Your task to perform on an android device: clear all cookies in the chrome app Image 0: 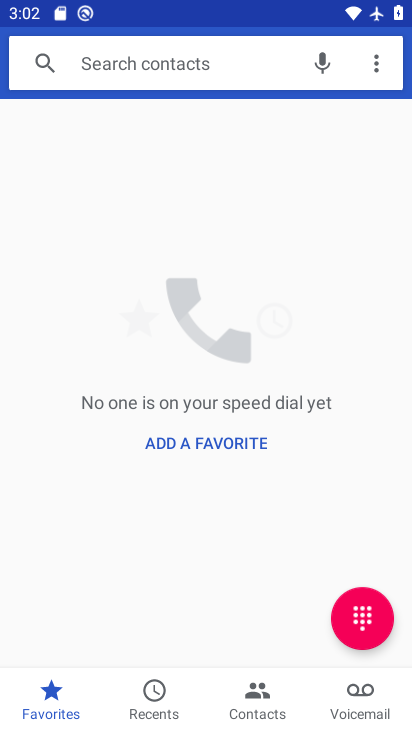
Step 0: press home button
Your task to perform on an android device: clear all cookies in the chrome app Image 1: 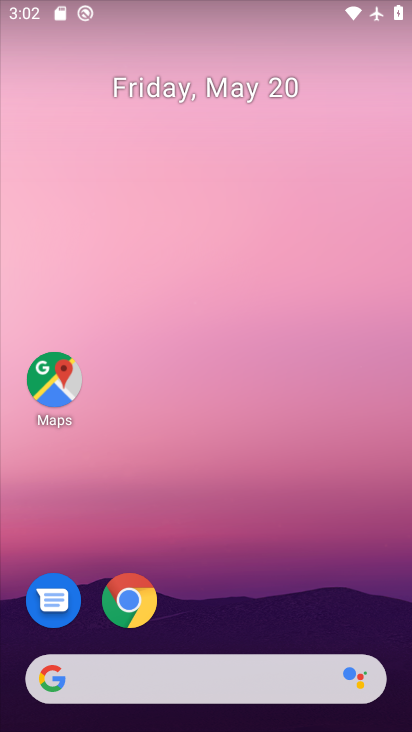
Step 1: click (132, 607)
Your task to perform on an android device: clear all cookies in the chrome app Image 2: 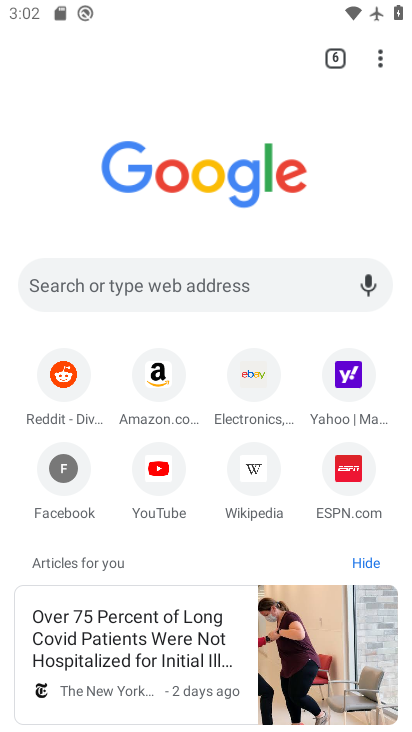
Step 2: click (377, 55)
Your task to perform on an android device: clear all cookies in the chrome app Image 3: 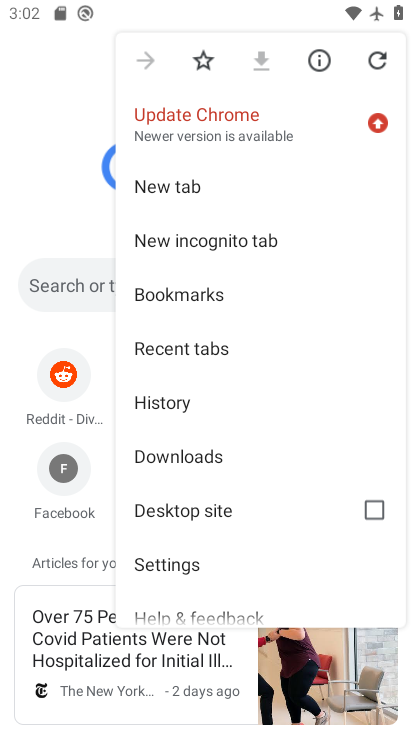
Step 3: click (191, 391)
Your task to perform on an android device: clear all cookies in the chrome app Image 4: 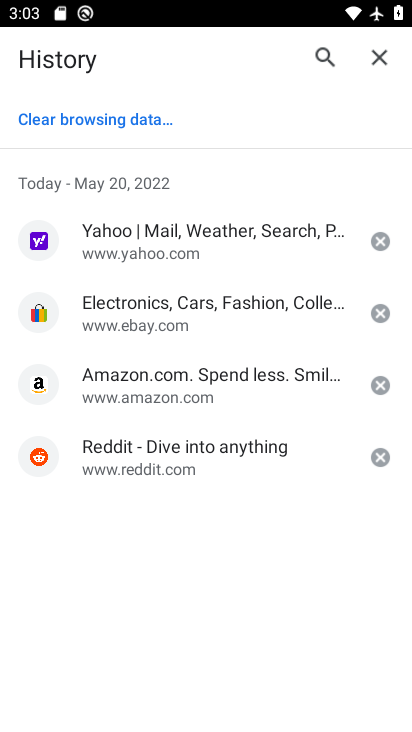
Step 4: click (130, 117)
Your task to perform on an android device: clear all cookies in the chrome app Image 5: 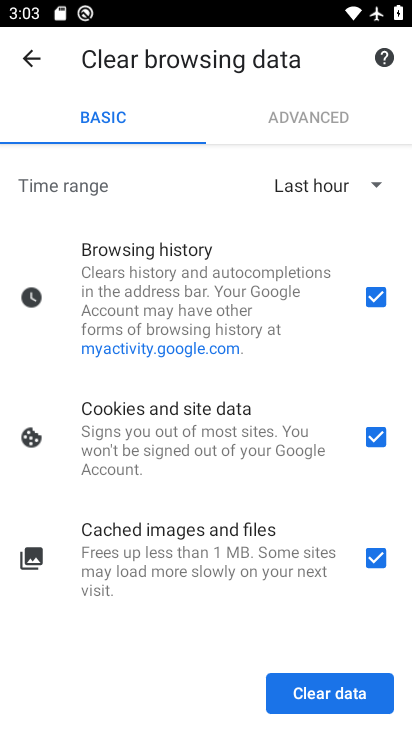
Step 5: click (333, 689)
Your task to perform on an android device: clear all cookies in the chrome app Image 6: 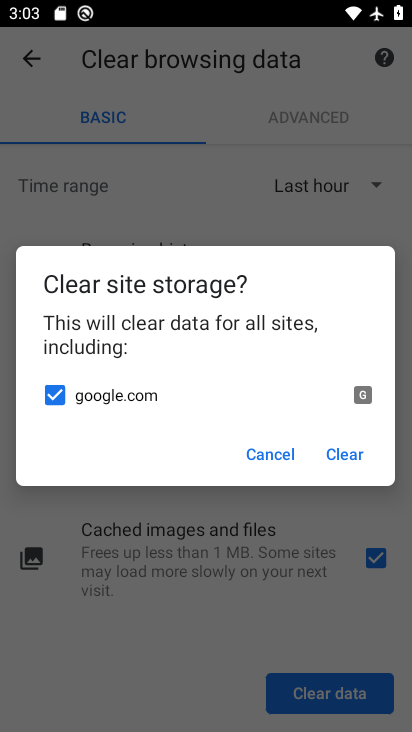
Step 6: click (343, 455)
Your task to perform on an android device: clear all cookies in the chrome app Image 7: 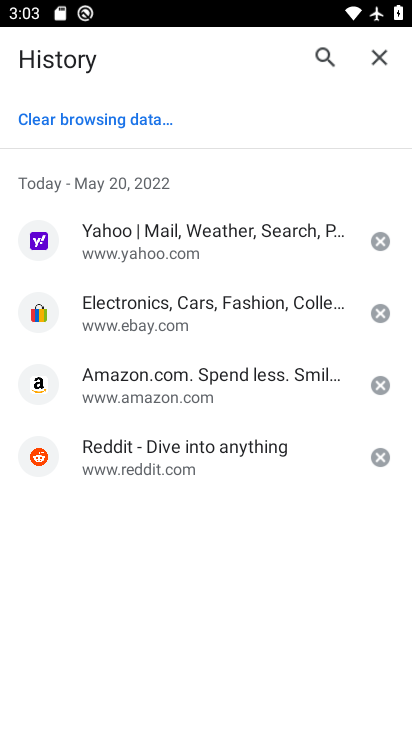
Step 7: task complete